Your task to perform on an android device: Do I have any events today? Image 0: 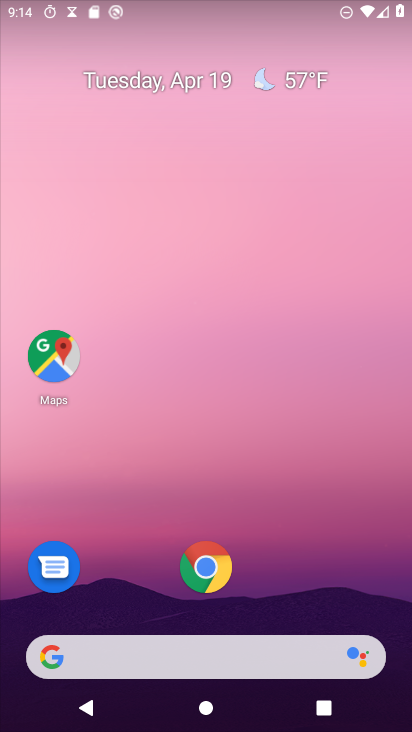
Step 0: drag from (307, 559) to (395, 33)
Your task to perform on an android device: Do I have any events today? Image 1: 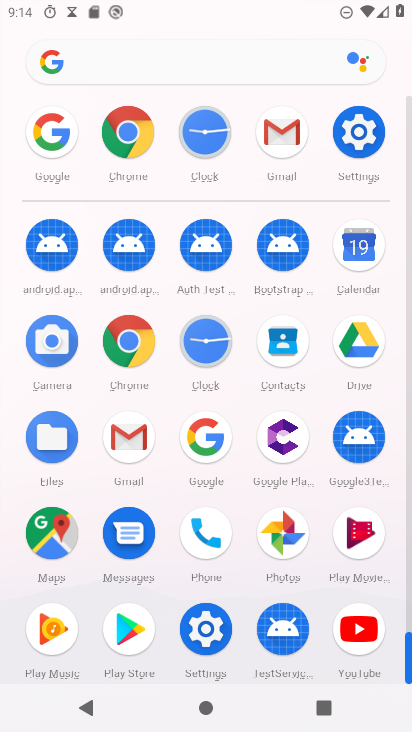
Step 1: click (373, 234)
Your task to perform on an android device: Do I have any events today? Image 2: 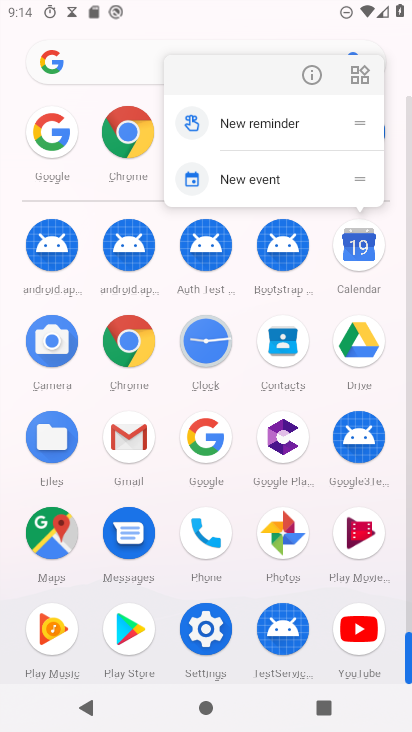
Step 2: click (369, 258)
Your task to perform on an android device: Do I have any events today? Image 3: 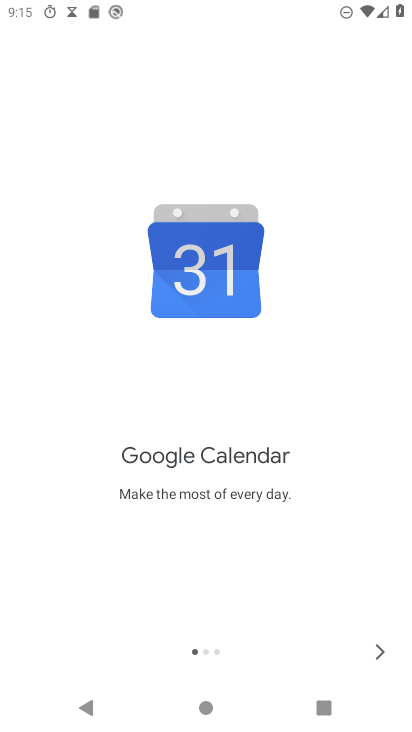
Step 3: click (391, 644)
Your task to perform on an android device: Do I have any events today? Image 4: 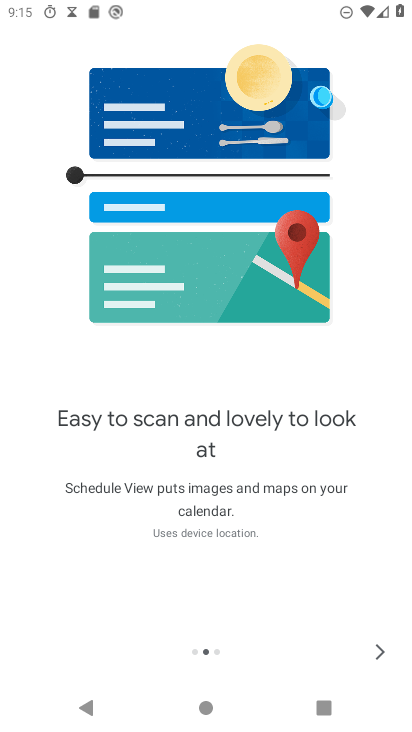
Step 4: click (391, 644)
Your task to perform on an android device: Do I have any events today? Image 5: 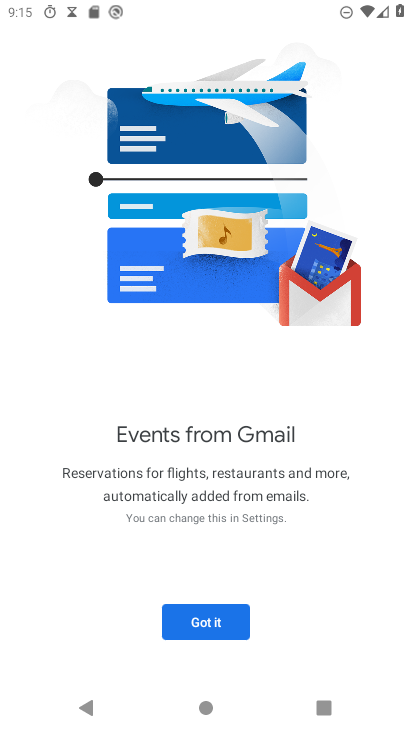
Step 5: click (206, 611)
Your task to perform on an android device: Do I have any events today? Image 6: 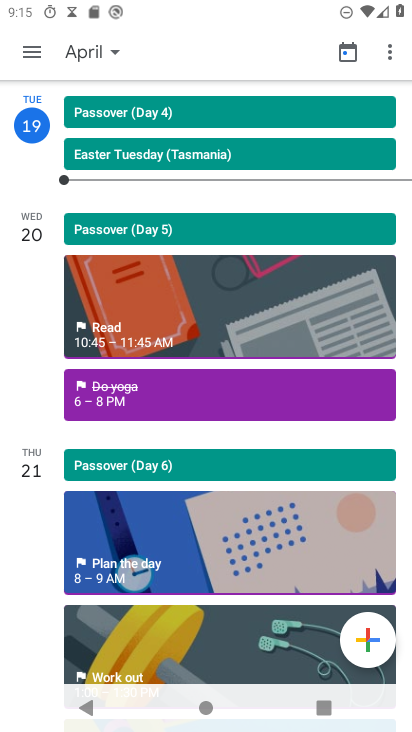
Step 6: click (111, 54)
Your task to perform on an android device: Do I have any events today? Image 7: 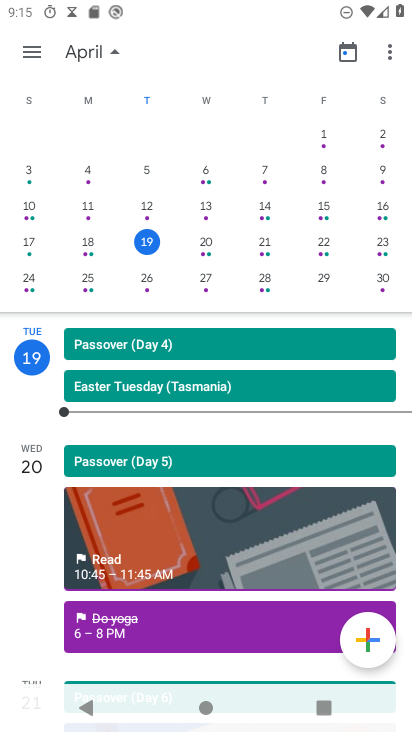
Step 7: click (154, 243)
Your task to perform on an android device: Do I have any events today? Image 8: 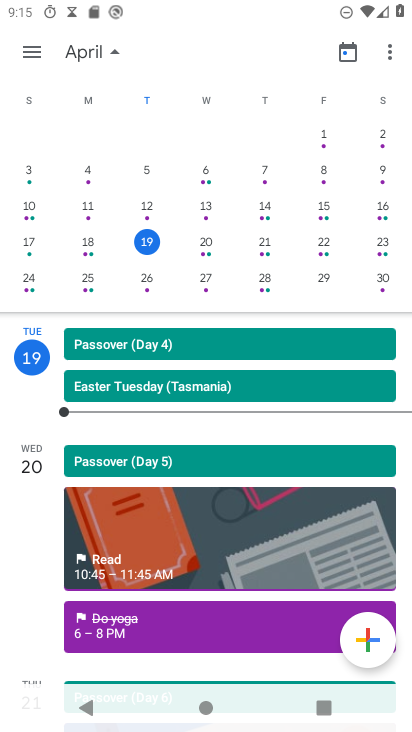
Step 8: task complete